Your task to perform on an android device: turn notification dots off Image 0: 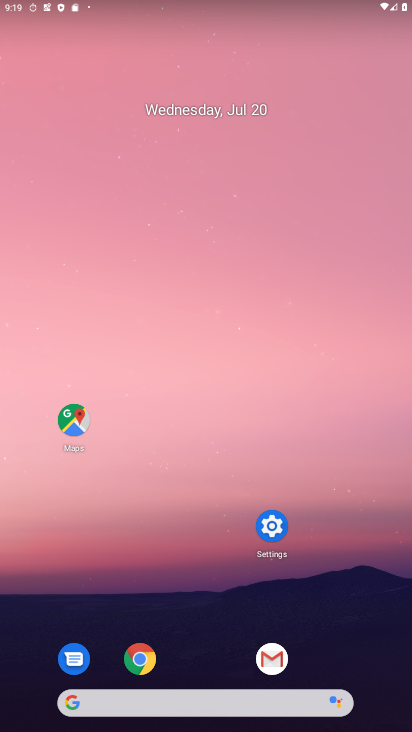
Step 0: press home button
Your task to perform on an android device: turn notification dots off Image 1: 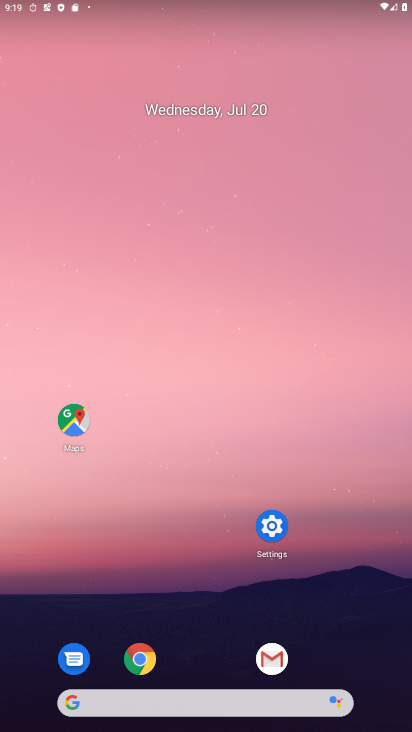
Step 1: click (271, 541)
Your task to perform on an android device: turn notification dots off Image 2: 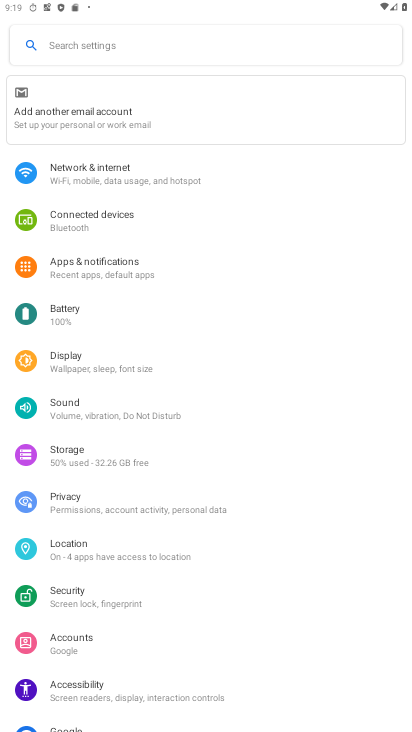
Step 2: click (100, 48)
Your task to perform on an android device: turn notification dots off Image 3: 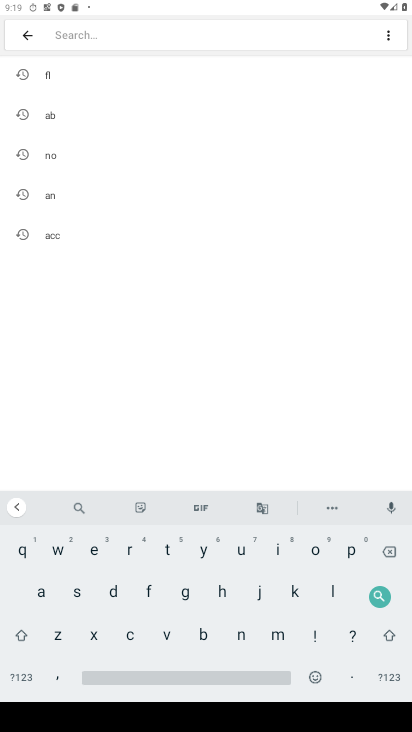
Step 3: click (62, 157)
Your task to perform on an android device: turn notification dots off Image 4: 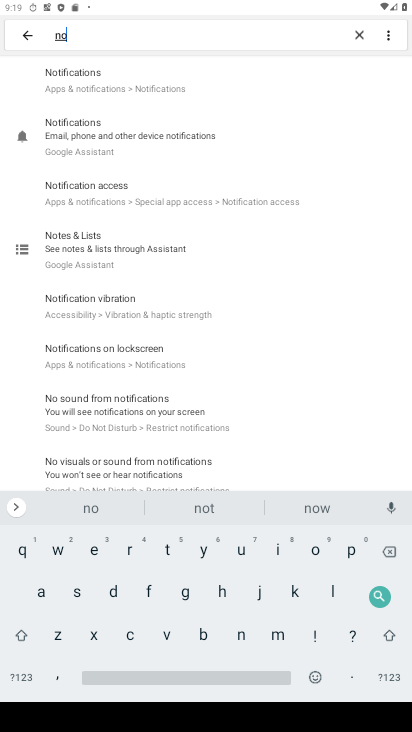
Step 4: click (87, 75)
Your task to perform on an android device: turn notification dots off Image 5: 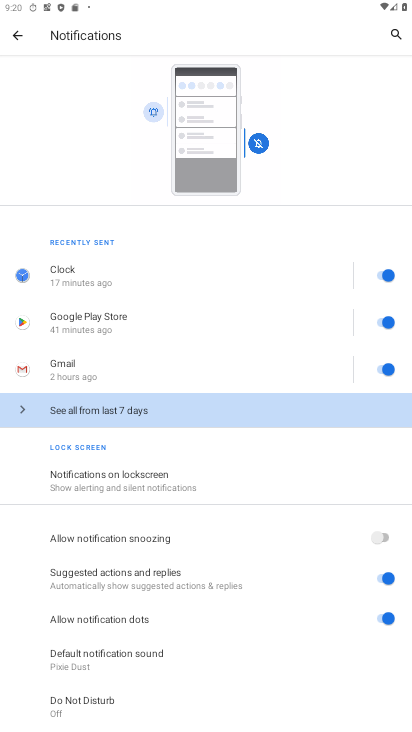
Step 5: click (342, 611)
Your task to perform on an android device: turn notification dots off Image 6: 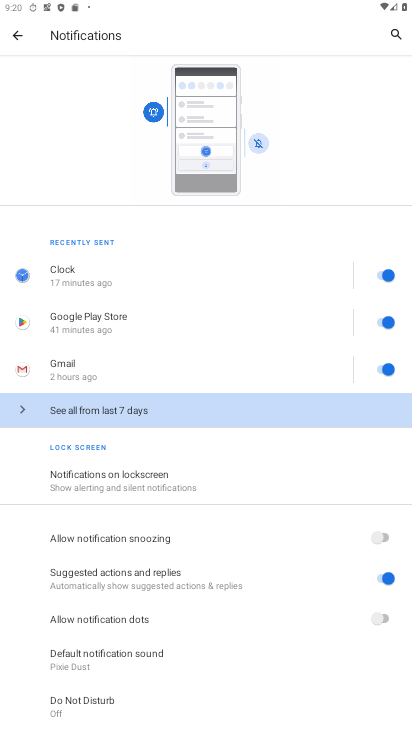
Step 6: task complete